Your task to perform on an android device: Set the phone to "Do not disturb". Image 0: 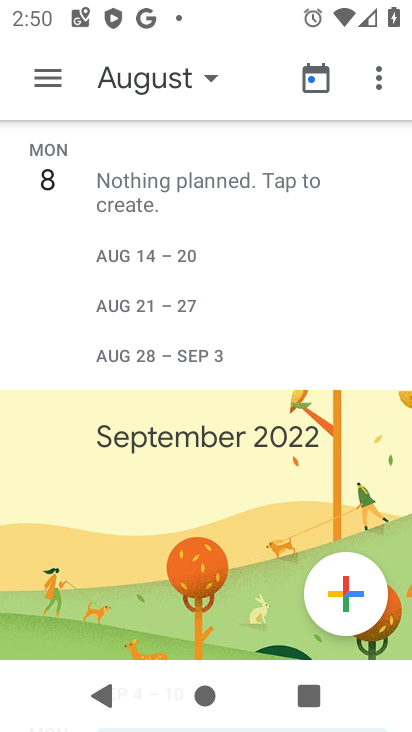
Step 0: press home button
Your task to perform on an android device: Set the phone to "Do not disturb". Image 1: 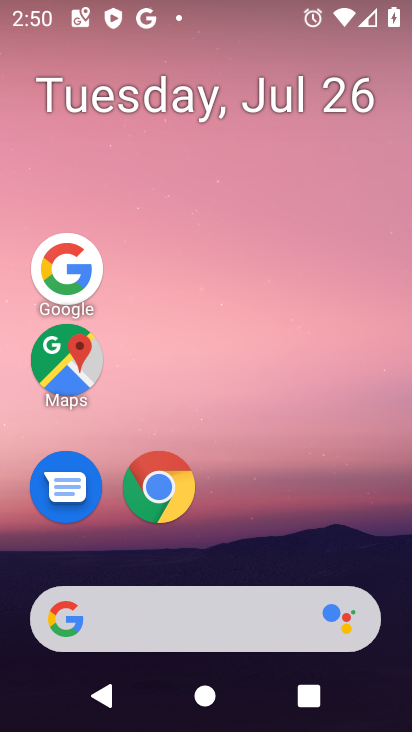
Step 1: drag from (212, 14) to (256, 676)
Your task to perform on an android device: Set the phone to "Do not disturb". Image 2: 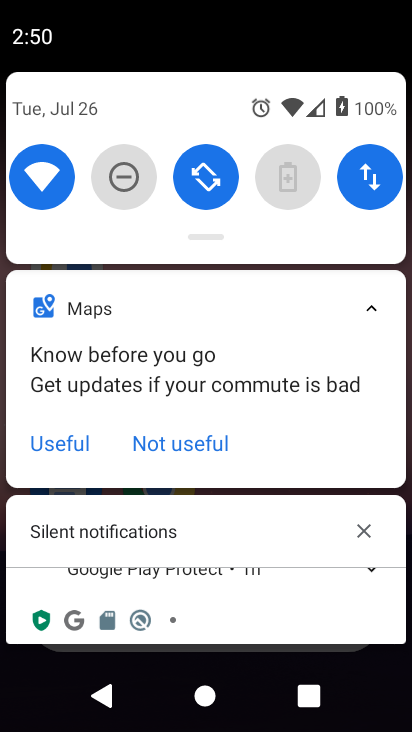
Step 2: drag from (141, 220) to (191, 652)
Your task to perform on an android device: Set the phone to "Do not disturb". Image 3: 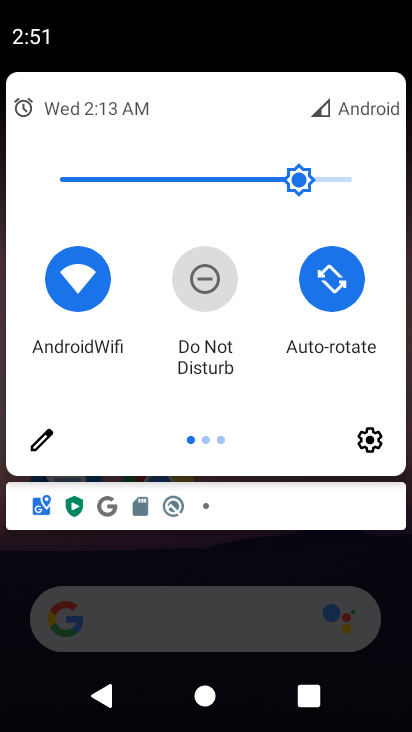
Step 3: click (200, 293)
Your task to perform on an android device: Set the phone to "Do not disturb". Image 4: 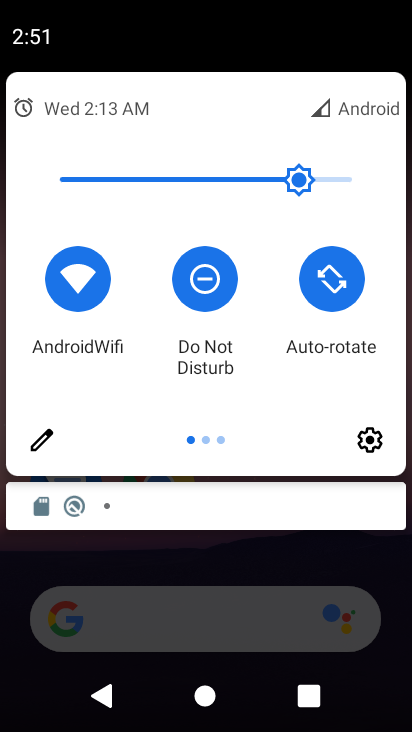
Step 4: task complete